Your task to perform on an android device: Go to eBay Image 0: 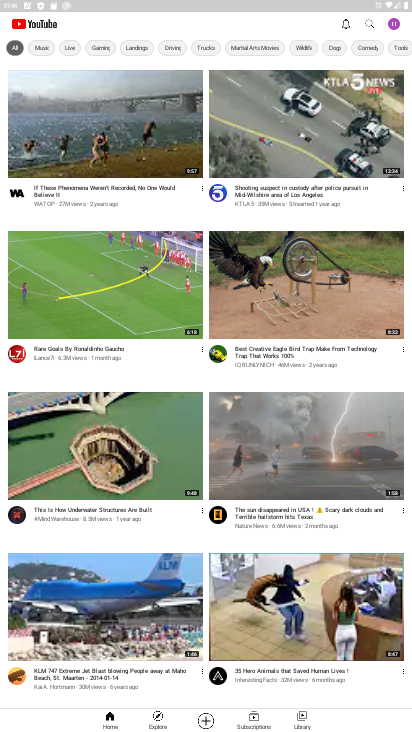
Step 0: press home button
Your task to perform on an android device: Go to eBay Image 1: 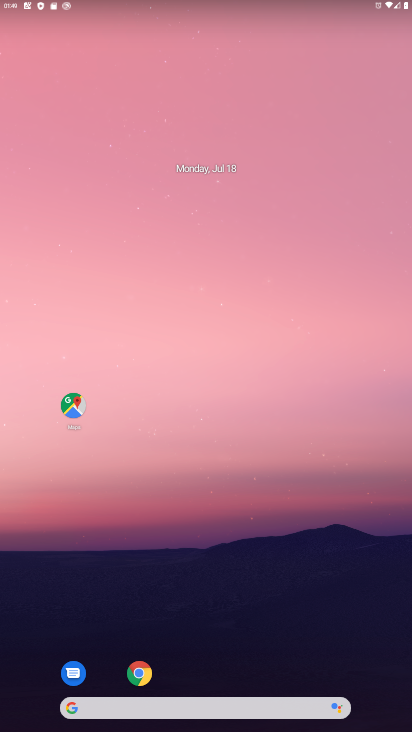
Step 1: click (154, 672)
Your task to perform on an android device: Go to eBay Image 2: 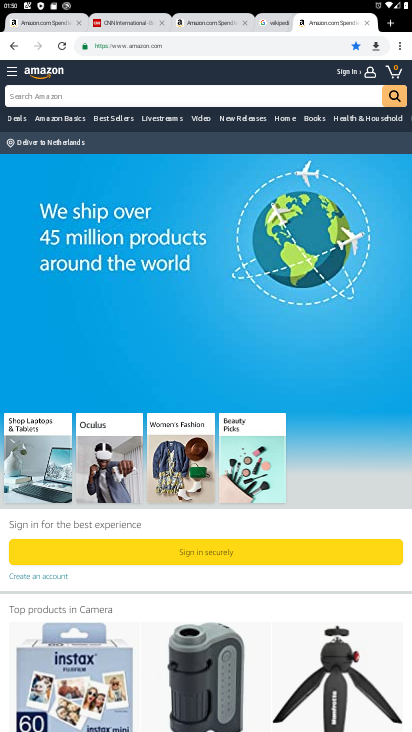
Step 2: click (395, 30)
Your task to perform on an android device: Go to eBay Image 3: 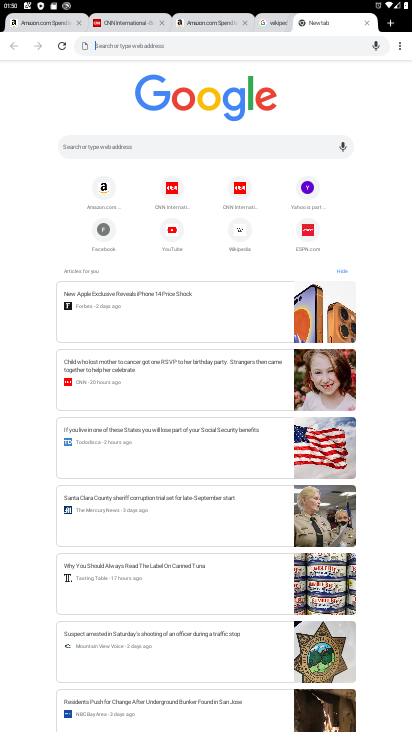
Step 3: click (188, 147)
Your task to perform on an android device: Go to eBay Image 4: 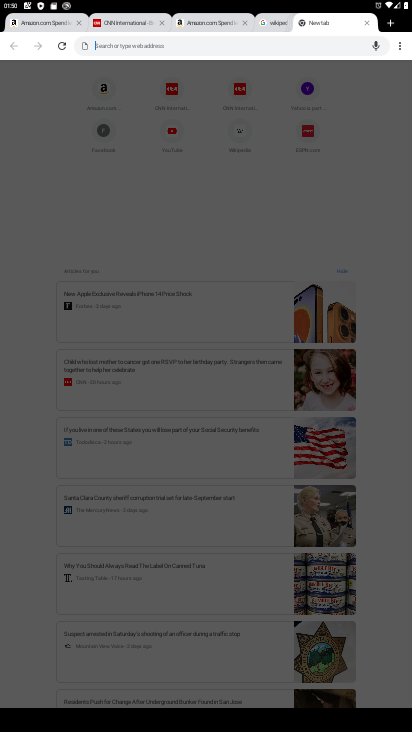
Step 4: type "ebay.com"
Your task to perform on an android device: Go to eBay Image 5: 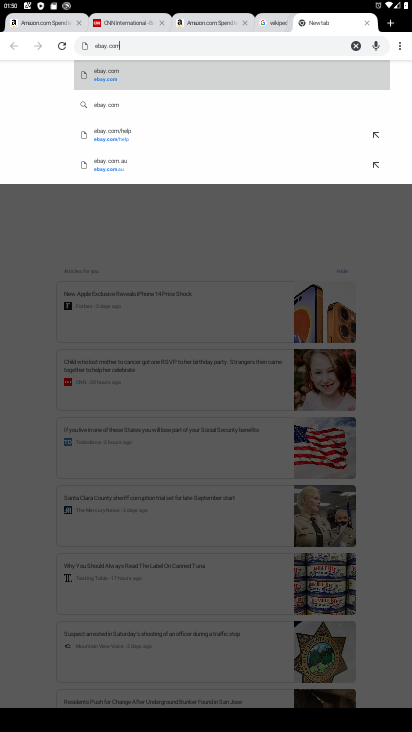
Step 5: click (160, 74)
Your task to perform on an android device: Go to eBay Image 6: 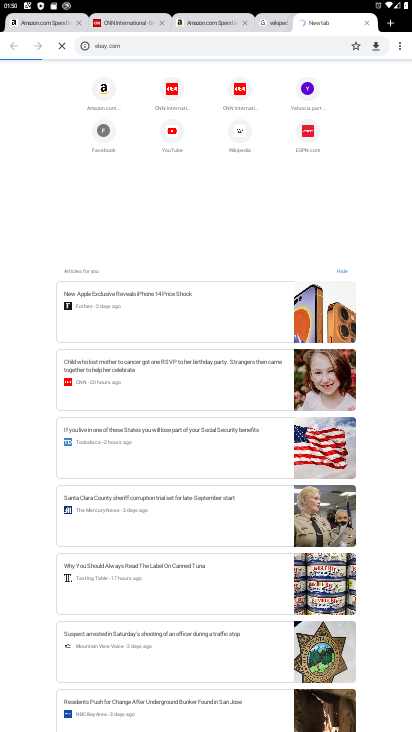
Step 6: task complete